Your task to perform on an android device: turn on data saver in the chrome app Image 0: 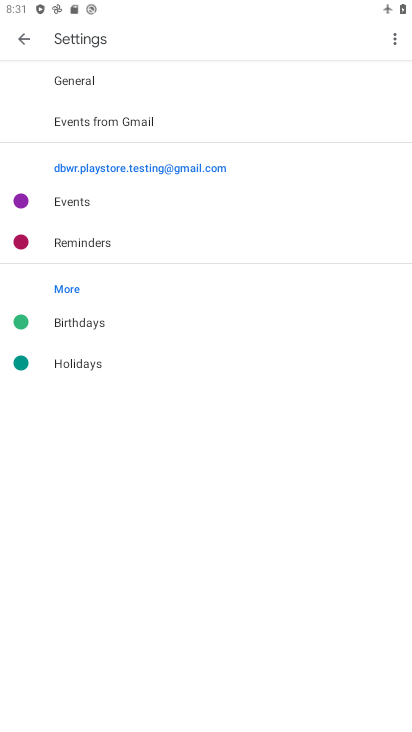
Step 0: press home button
Your task to perform on an android device: turn on data saver in the chrome app Image 1: 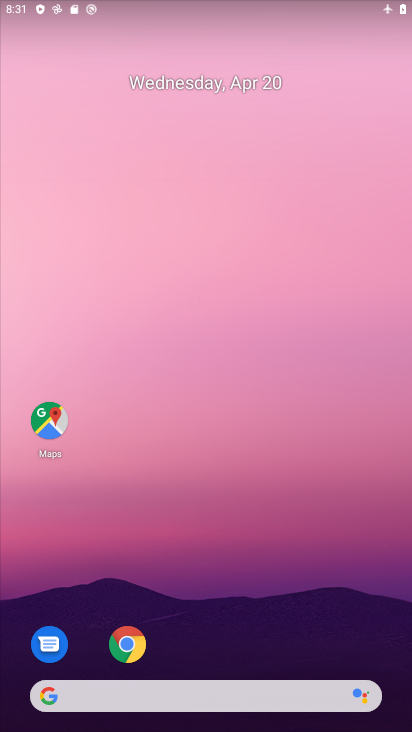
Step 1: drag from (351, 636) to (264, 110)
Your task to perform on an android device: turn on data saver in the chrome app Image 2: 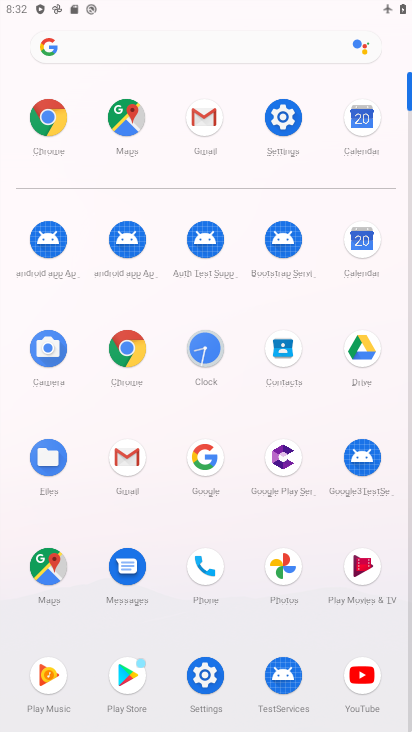
Step 2: click (47, 127)
Your task to perform on an android device: turn on data saver in the chrome app Image 3: 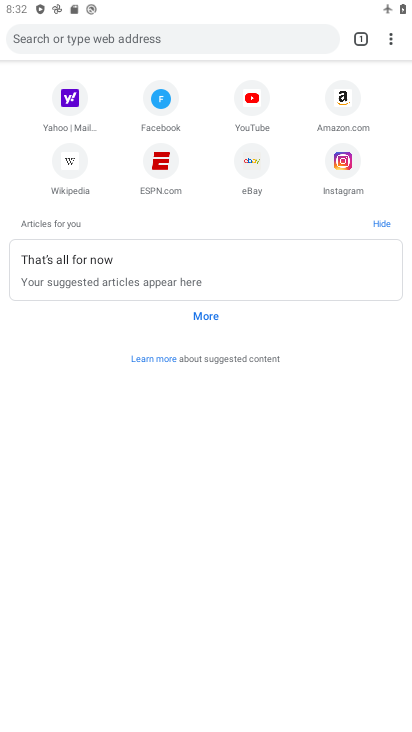
Step 3: click (390, 39)
Your task to perform on an android device: turn on data saver in the chrome app Image 4: 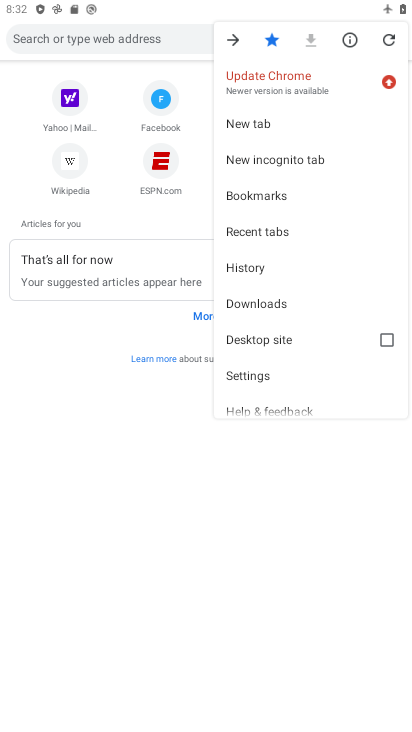
Step 4: click (272, 378)
Your task to perform on an android device: turn on data saver in the chrome app Image 5: 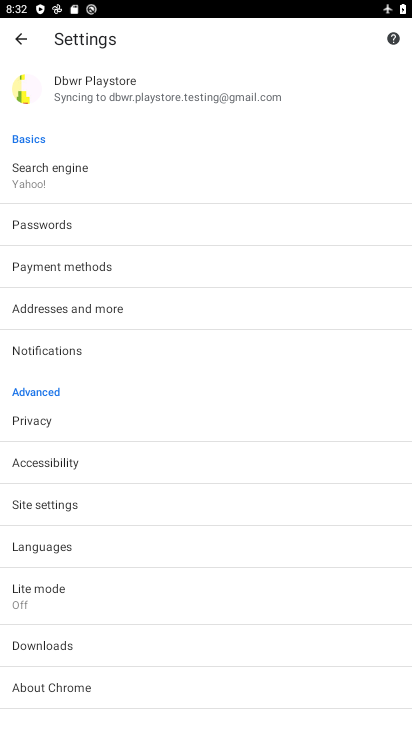
Step 5: click (119, 598)
Your task to perform on an android device: turn on data saver in the chrome app Image 6: 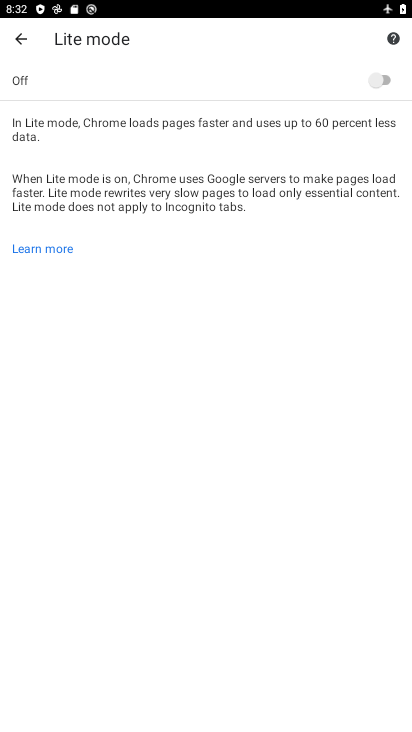
Step 6: click (372, 94)
Your task to perform on an android device: turn on data saver in the chrome app Image 7: 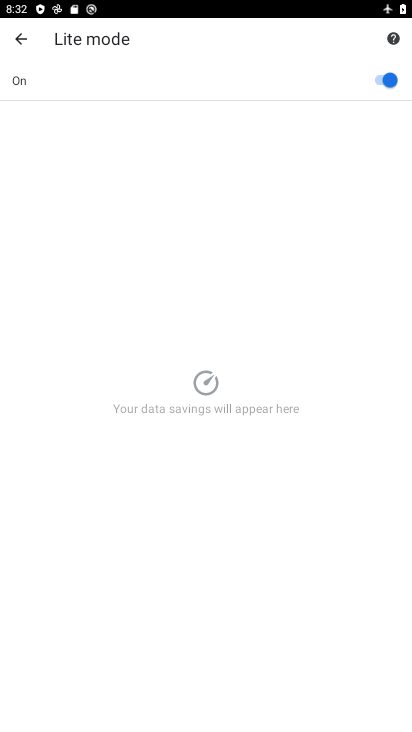
Step 7: task complete